Your task to perform on an android device: find which apps use the phone's location Image 0: 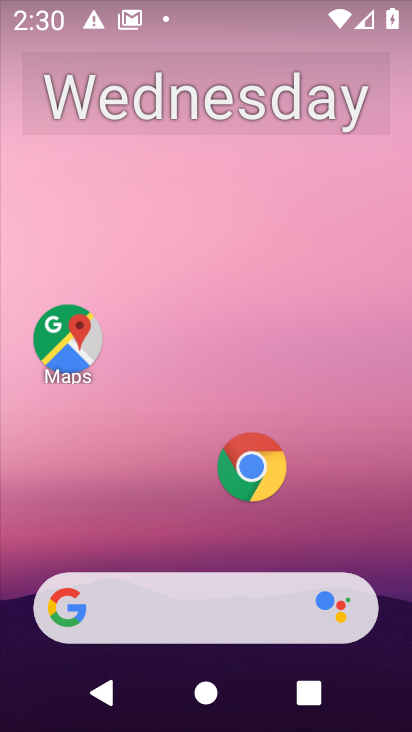
Step 0: drag from (148, 517) to (208, 108)
Your task to perform on an android device: find which apps use the phone's location Image 1: 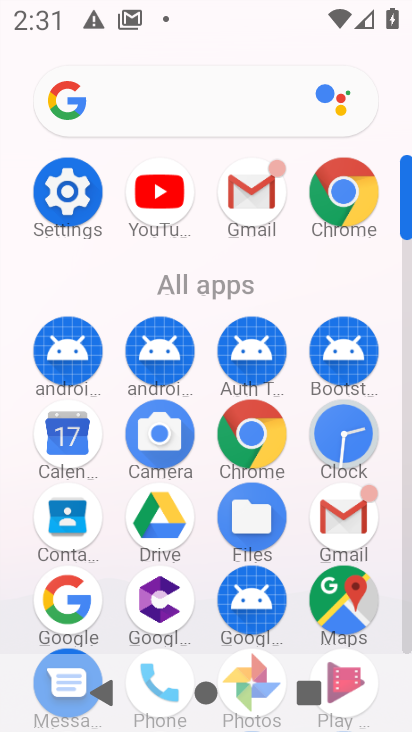
Step 1: task complete